Your task to perform on an android device: Toggle the flashlight Image 0: 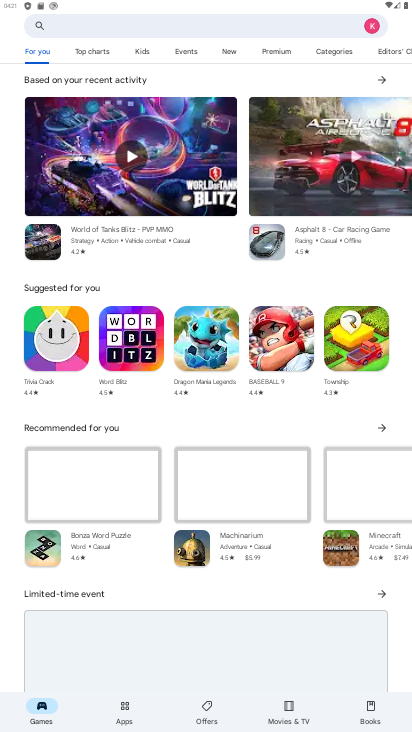
Step 0: press home button
Your task to perform on an android device: Toggle the flashlight Image 1: 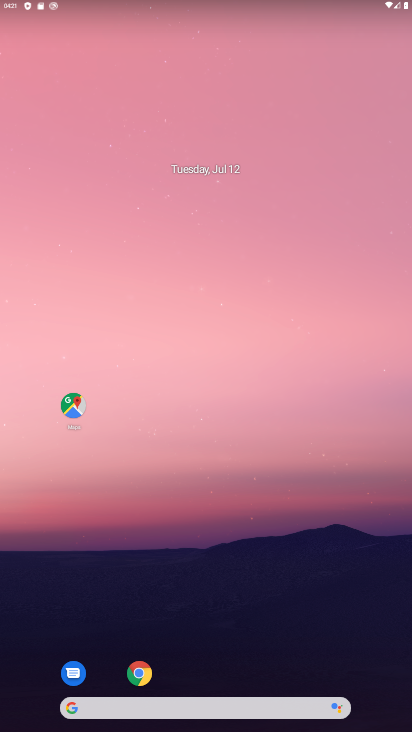
Step 1: drag from (189, 624) to (214, 109)
Your task to perform on an android device: Toggle the flashlight Image 2: 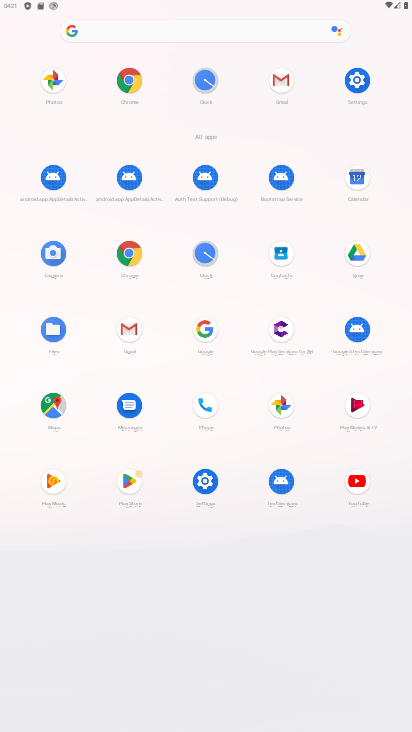
Step 2: click (355, 84)
Your task to perform on an android device: Toggle the flashlight Image 3: 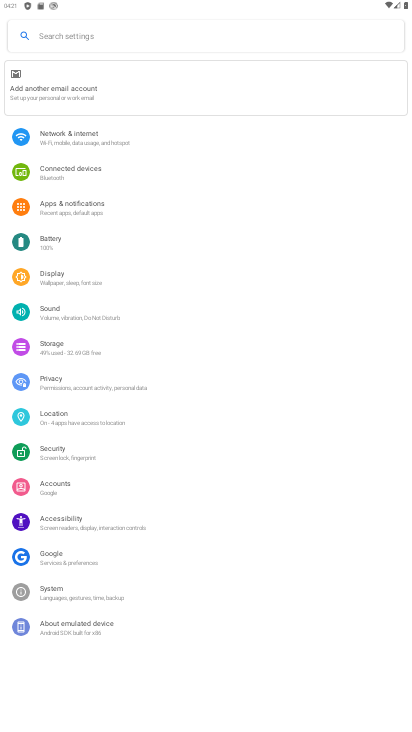
Step 3: task complete